Your task to perform on an android device: clear all cookies in the chrome app Image 0: 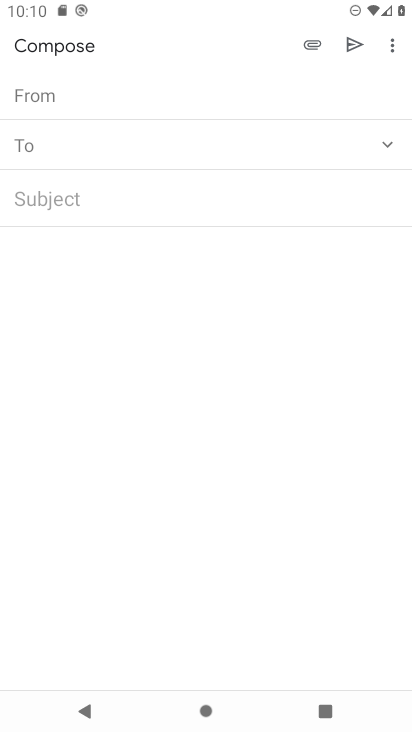
Step 0: press back button
Your task to perform on an android device: clear all cookies in the chrome app Image 1: 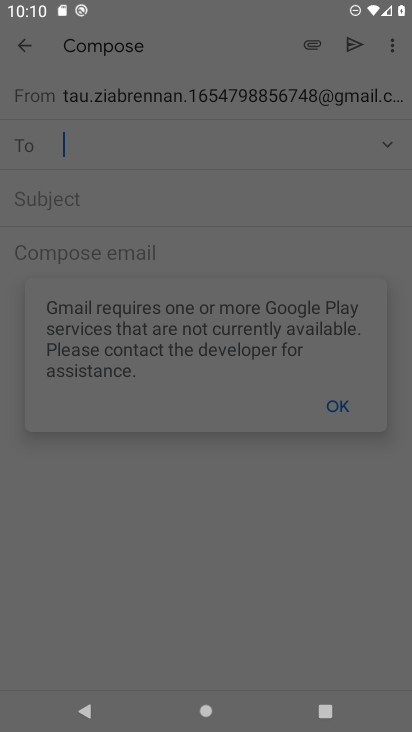
Step 1: press home button
Your task to perform on an android device: clear all cookies in the chrome app Image 2: 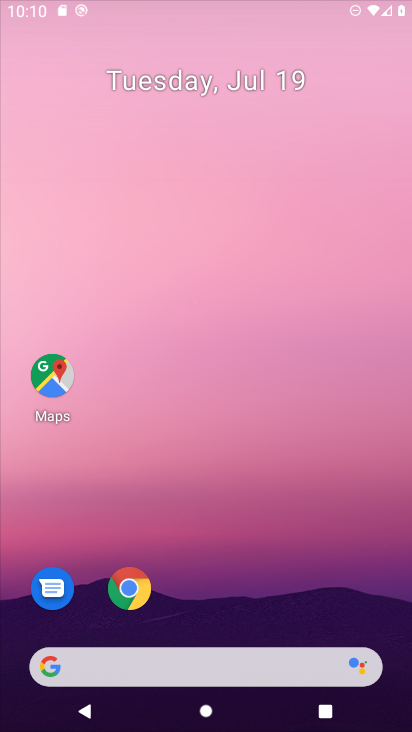
Step 2: drag from (247, 627) to (146, 77)
Your task to perform on an android device: clear all cookies in the chrome app Image 3: 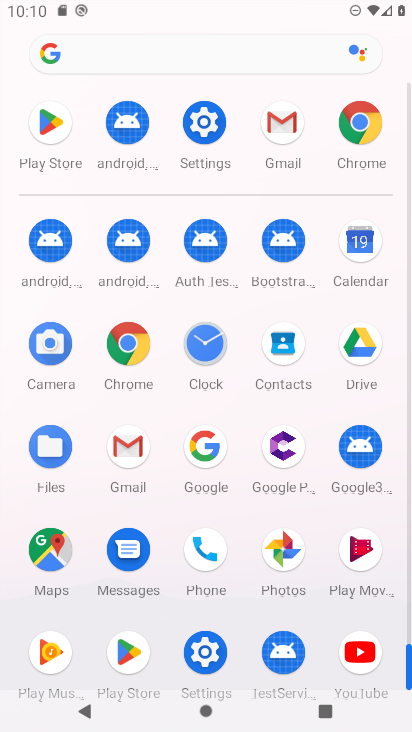
Step 3: click (361, 117)
Your task to perform on an android device: clear all cookies in the chrome app Image 4: 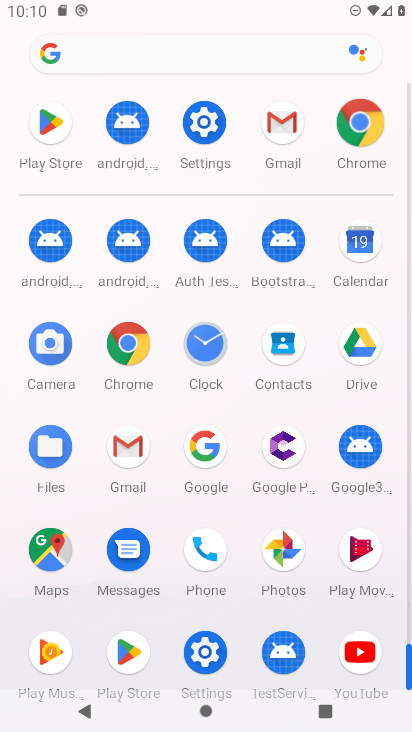
Step 4: click (360, 117)
Your task to perform on an android device: clear all cookies in the chrome app Image 5: 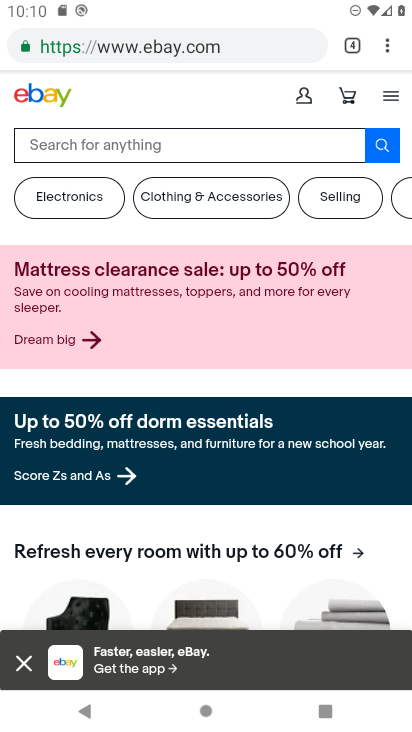
Step 5: click (388, 38)
Your task to perform on an android device: clear all cookies in the chrome app Image 6: 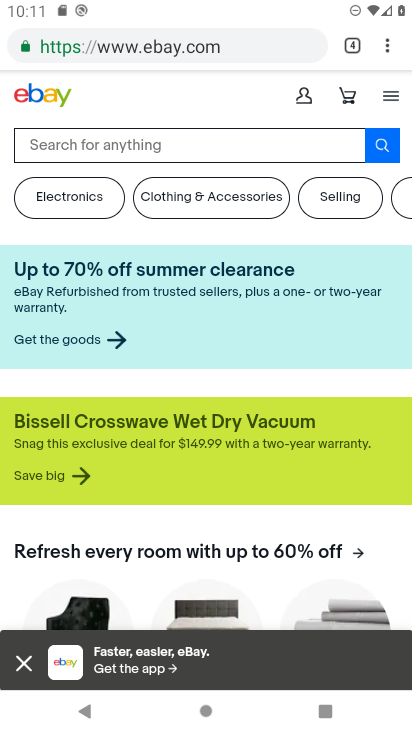
Step 6: click (384, 51)
Your task to perform on an android device: clear all cookies in the chrome app Image 7: 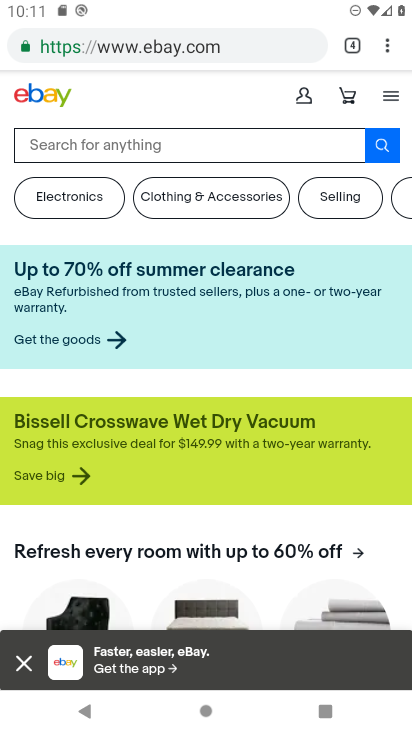
Step 7: click (386, 36)
Your task to perform on an android device: clear all cookies in the chrome app Image 8: 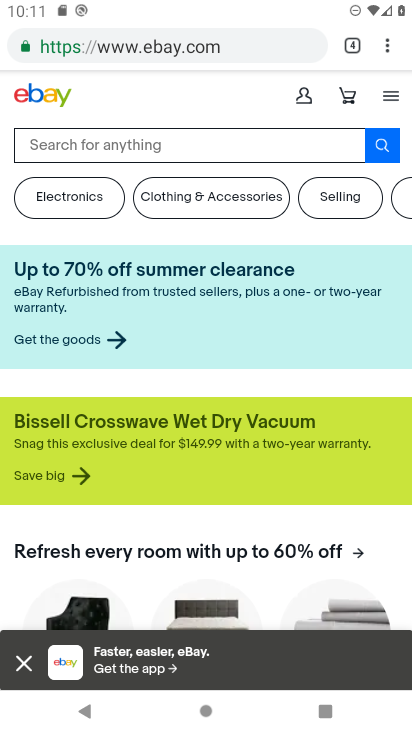
Step 8: click (381, 44)
Your task to perform on an android device: clear all cookies in the chrome app Image 9: 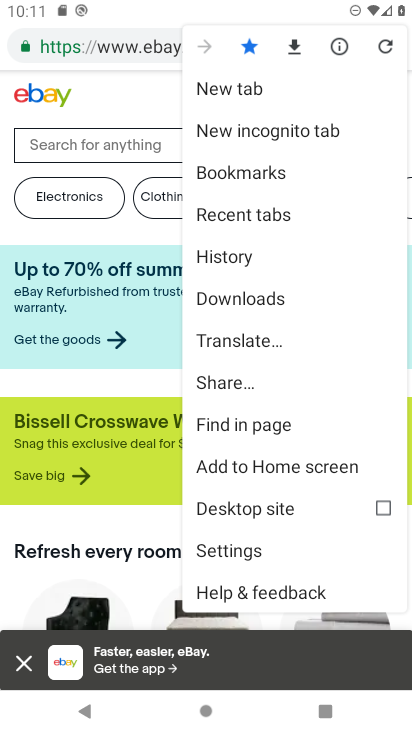
Step 9: drag from (388, 45) to (223, 548)
Your task to perform on an android device: clear all cookies in the chrome app Image 10: 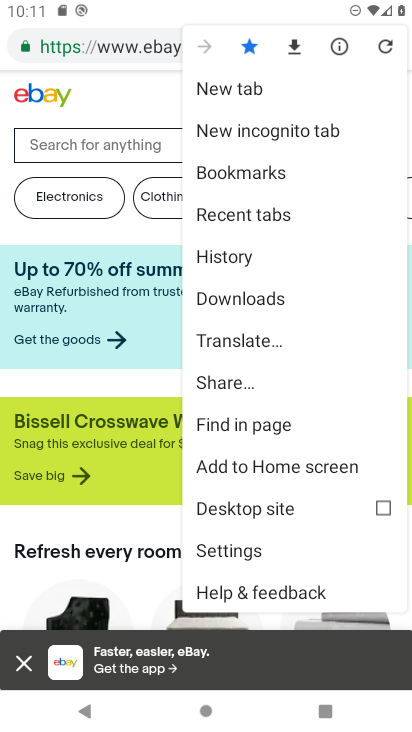
Step 10: click (224, 547)
Your task to perform on an android device: clear all cookies in the chrome app Image 11: 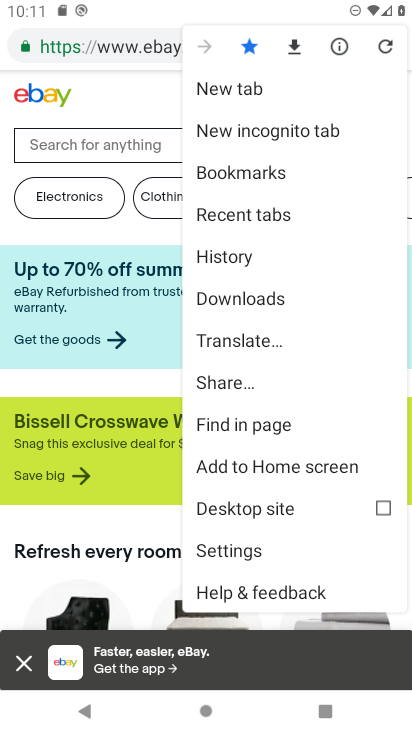
Step 11: click (224, 547)
Your task to perform on an android device: clear all cookies in the chrome app Image 12: 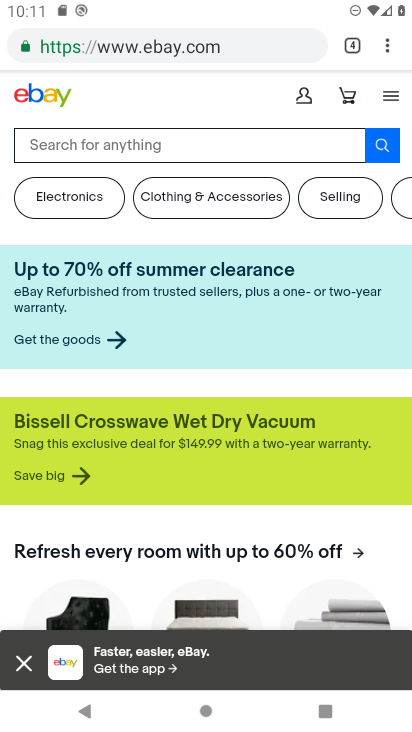
Step 12: click (229, 542)
Your task to perform on an android device: clear all cookies in the chrome app Image 13: 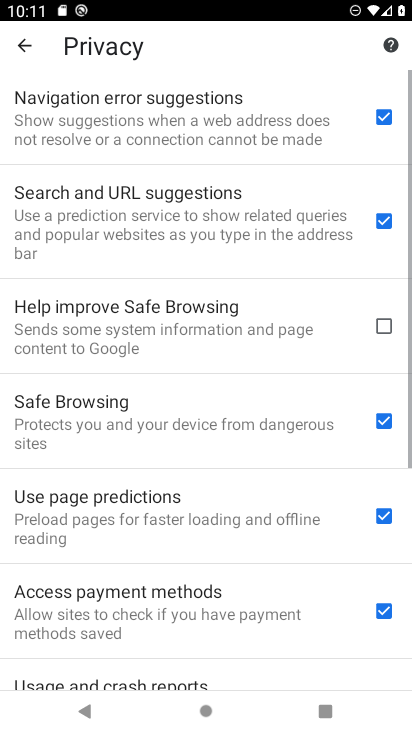
Step 13: click (28, 38)
Your task to perform on an android device: clear all cookies in the chrome app Image 14: 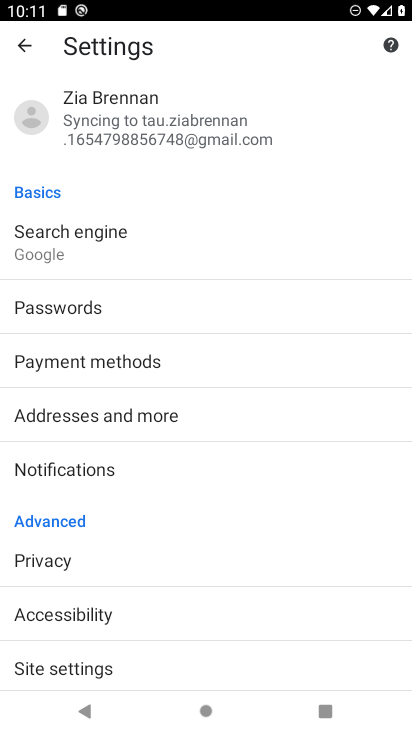
Step 14: drag from (61, 504) to (22, 160)
Your task to perform on an android device: clear all cookies in the chrome app Image 15: 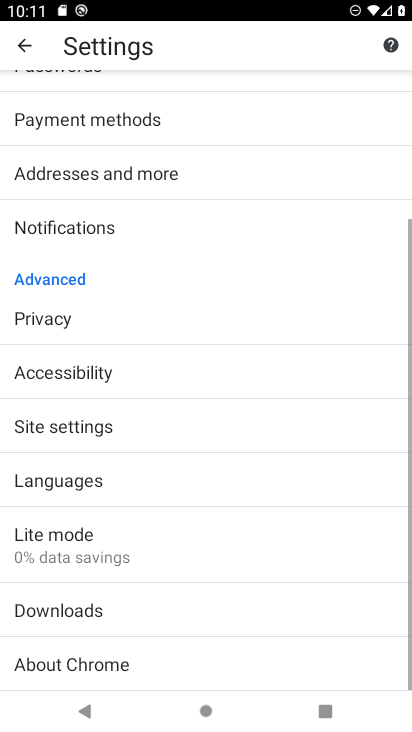
Step 15: drag from (121, 458) to (117, 396)
Your task to perform on an android device: clear all cookies in the chrome app Image 16: 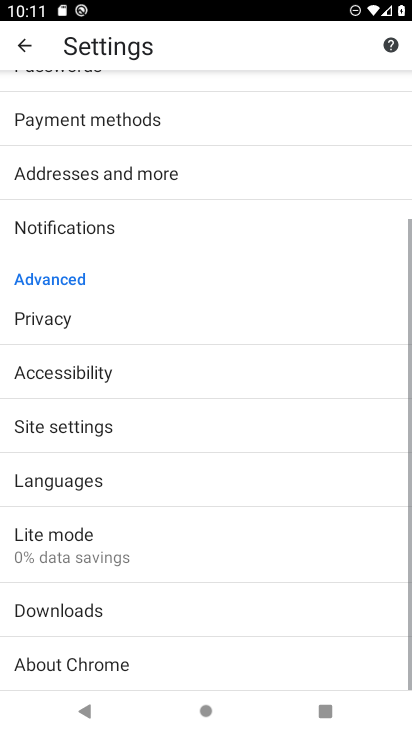
Step 16: click (49, 425)
Your task to perform on an android device: clear all cookies in the chrome app Image 17: 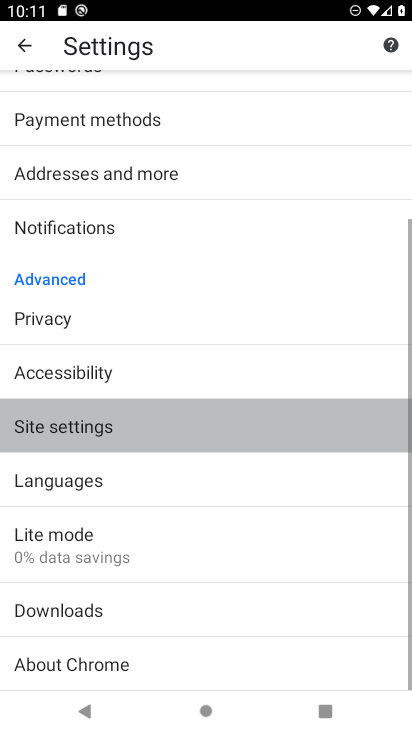
Step 17: click (49, 425)
Your task to perform on an android device: clear all cookies in the chrome app Image 18: 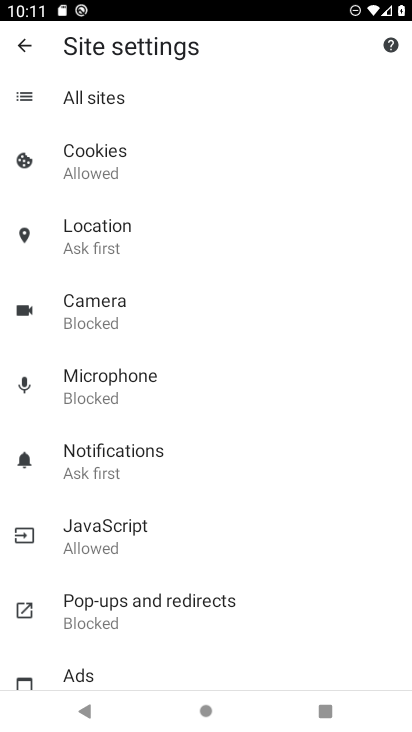
Step 18: click (113, 165)
Your task to perform on an android device: clear all cookies in the chrome app Image 19: 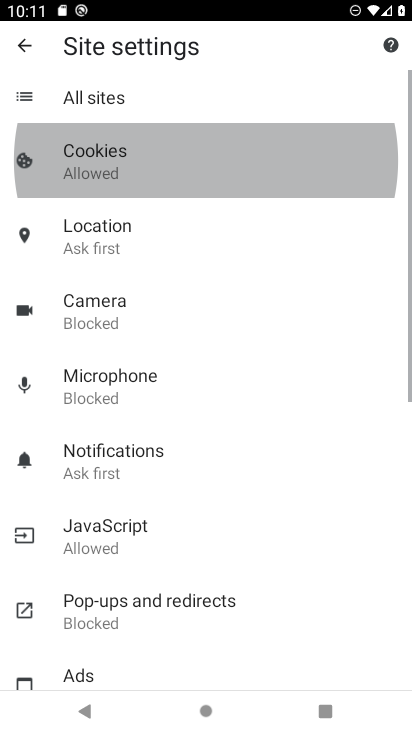
Step 19: click (114, 169)
Your task to perform on an android device: clear all cookies in the chrome app Image 20: 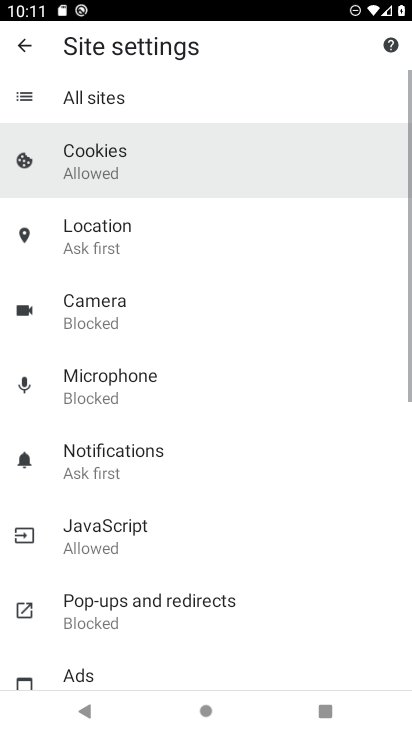
Step 20: click (114, 169)
Your task to perform on an android device: clear all cookies in the chrome app Image 21: 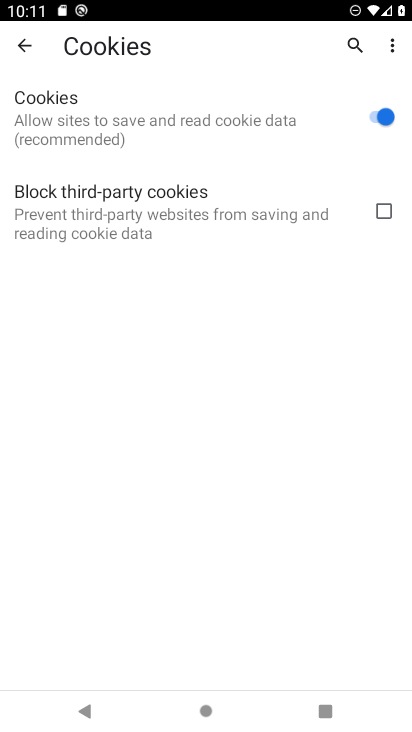
Step 21: click (381, 111)
Your task to perform on an android device: clear all cookies in the chrome app Image 22: 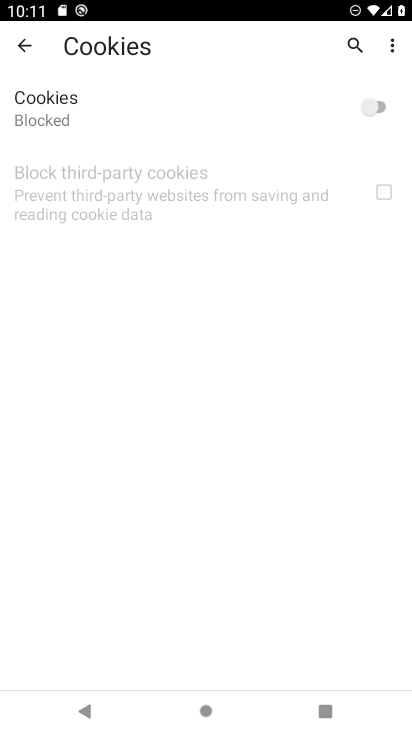
Step 22: task complete